Your task to perform on an android device: star an email in the gmail app Image 0: 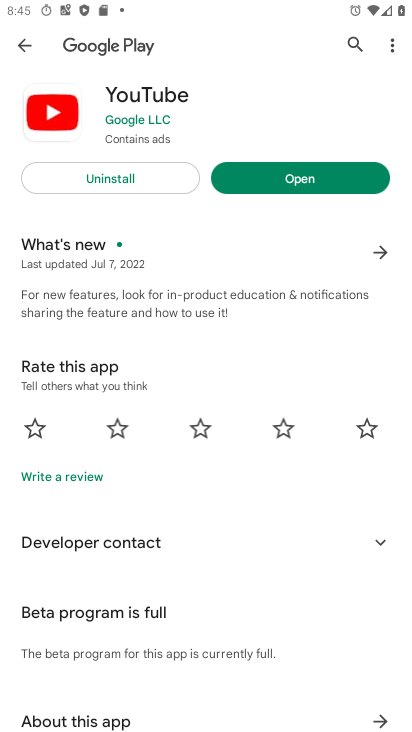
Step 0: press home button
Your task to perform on an android device: star an email in the gmail app Image 1: 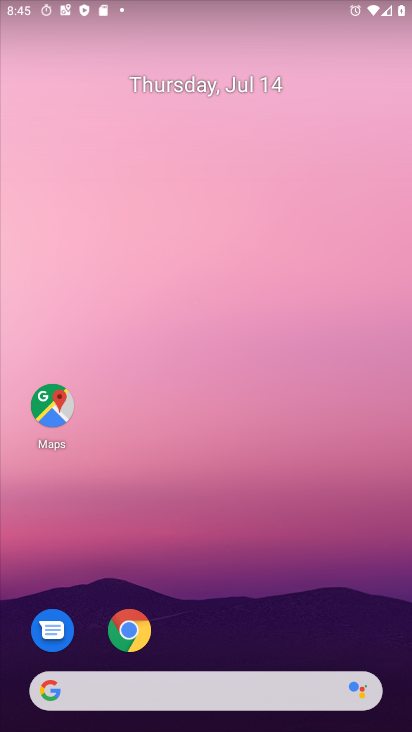
Step 1: drag from (270, 699) to (263, 366)
Your task to perform on an android device: star an email in the gmail app Image 2: 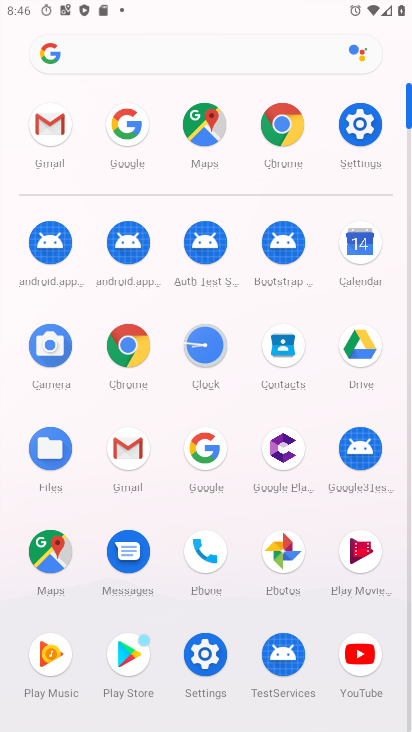
Step 2: click (132, 446)
Your task to perform on an android device: star an email in the gmail app Image 3: 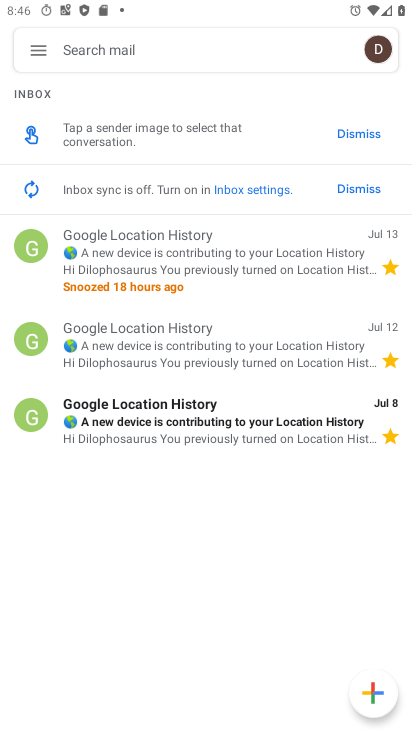
Step 3: task complete